Your task to perform on an android device: add a contact Image 0: 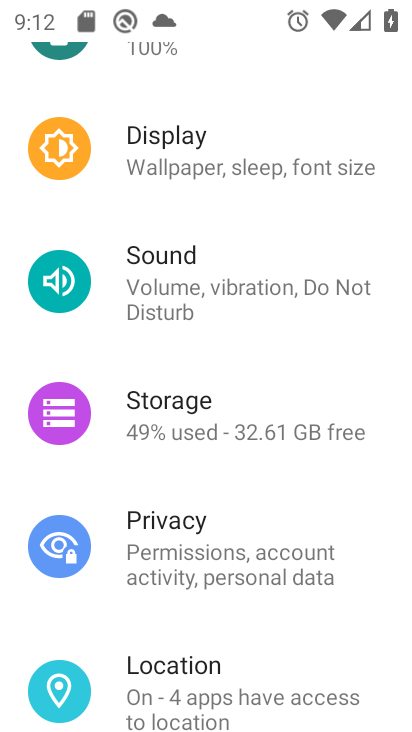
Step 0: press home button
Your task to perform on an android device: add a contact Image 1: 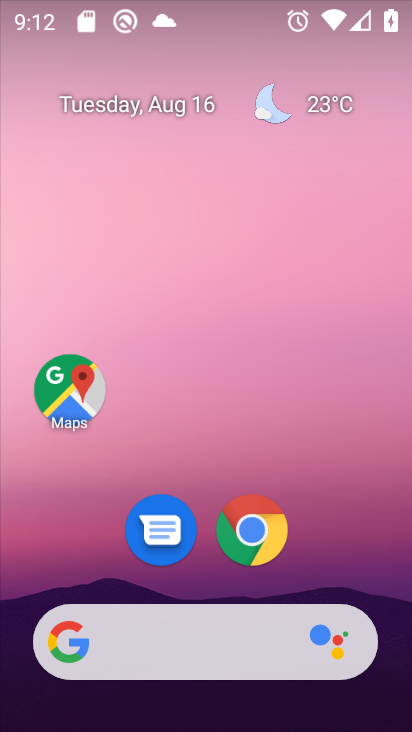
Step 1: drag from (333, 479) to (345, 68)
Your task to perform on an android device: add a contact Image 2: 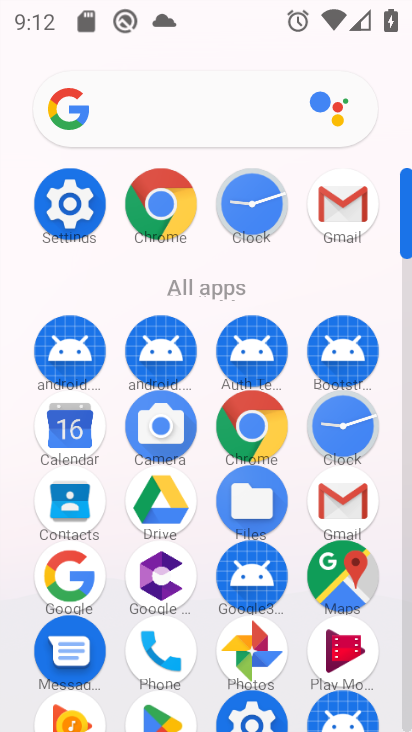
Step 2: click (85, 508)
Your task to perform on an android device: add a contact Image 3: 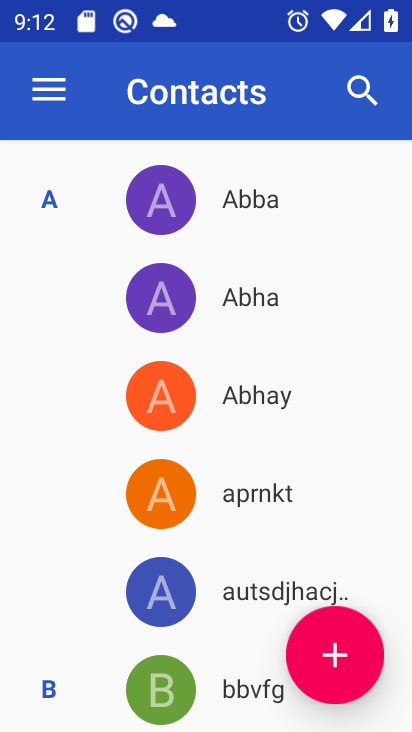
Step 3: click (338, 662)
Your task to perform on an android device: add a contact Image 4: 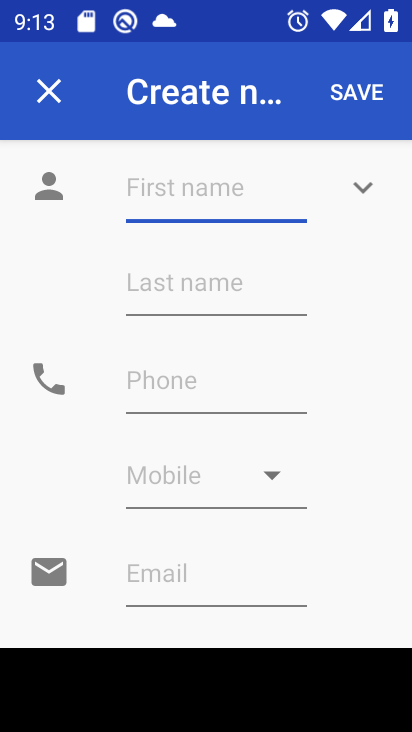
Step 4: type "woo"
Your task to perform on an android device: add a contact Image 5: 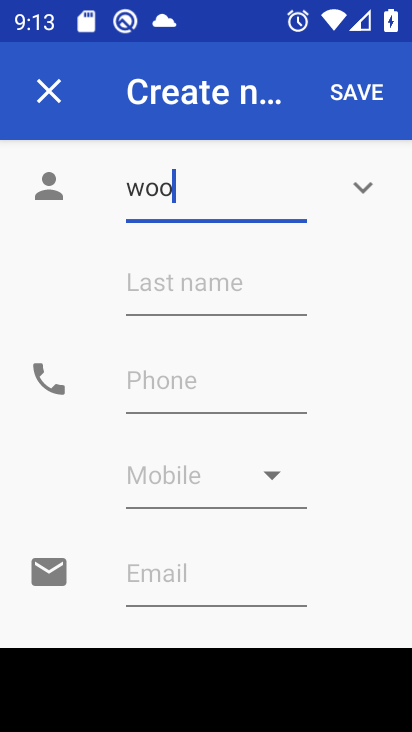
Step 5: click (358, 103)
Your task to perform on an android device: add a contact Image 6: 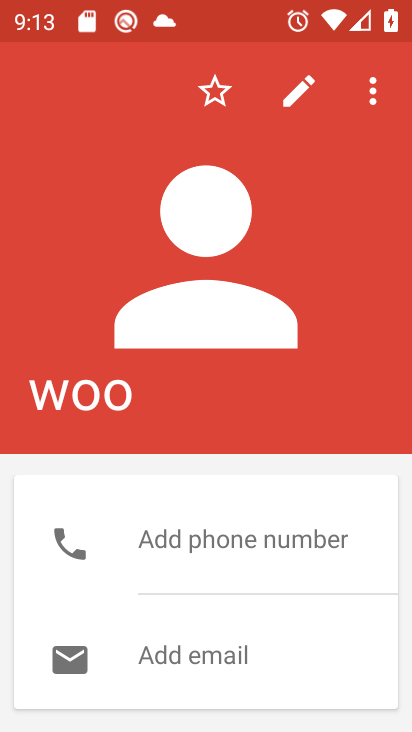
Step 6: task complete